Your task to perform on an android device: Go to internet settings Image 0: 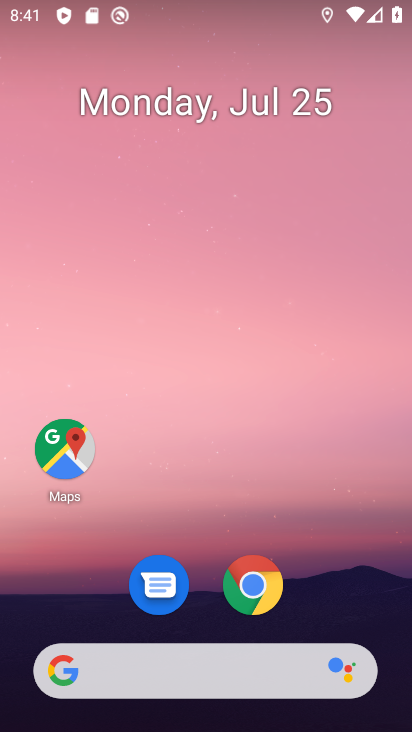
Step 0: press home button
Your task to perform on an android device: Go to internet settings Image 1: 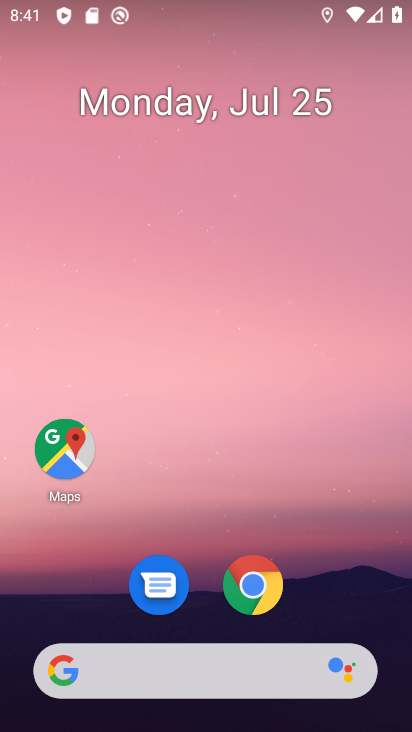
Step 1: drag from (200, 689) to (310, 96)
Your task to perform on an android device: Go to internet settings Image 2: 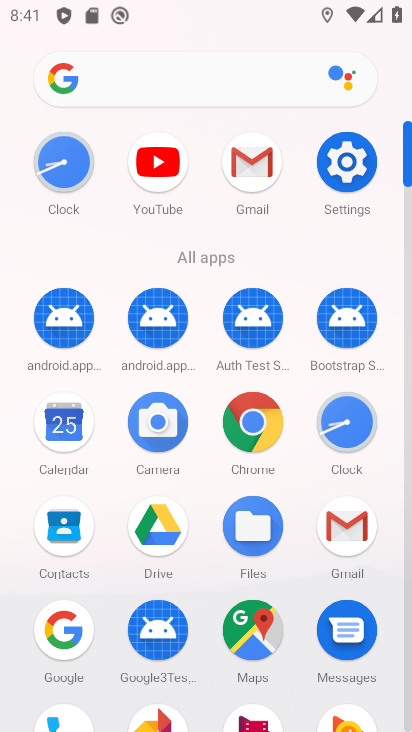
Step 2: click (354, 160)
Your task to perform on an android device: Go to internet settings Image 3: 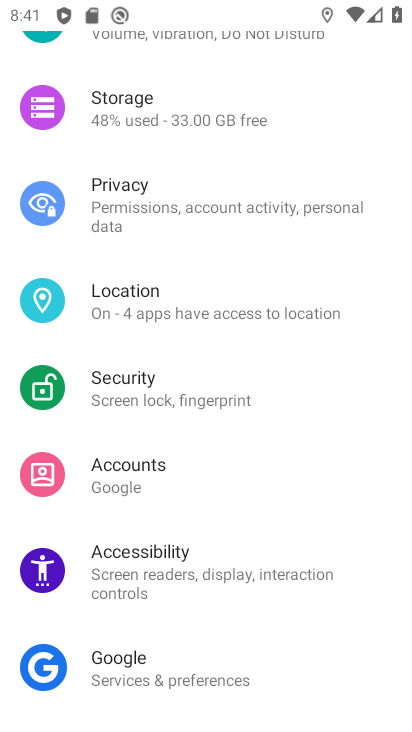
Step 3: drag from (326, 89) to (263, 603)
Your task to perform on an android device: Go to internet settings Image 4: 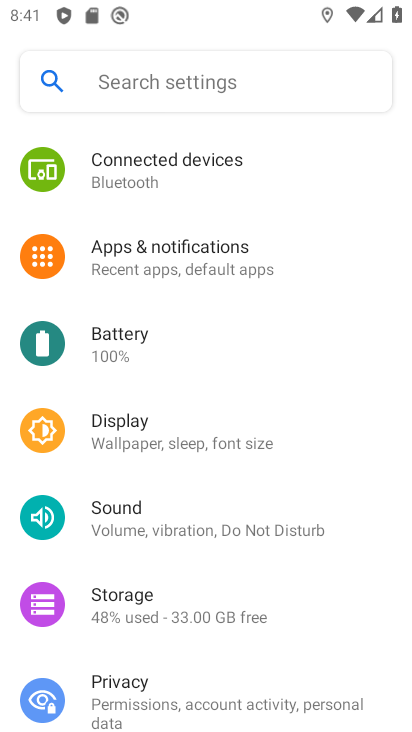
Step 4: drag from (367, 151) to (262, 636)
Your task to perform on an android device: Go to internet settings Image 5: 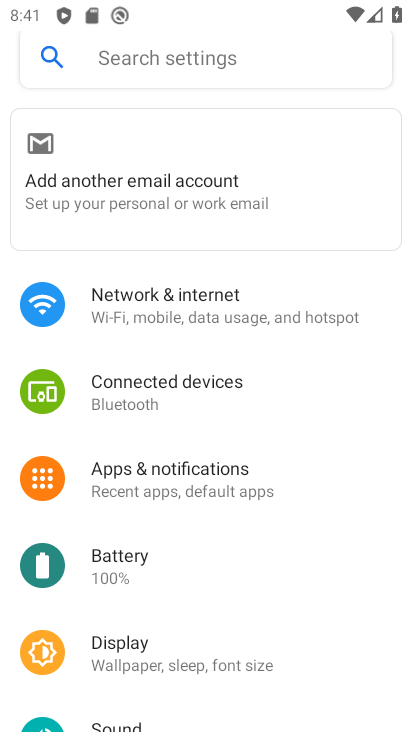
Step 5: click (206, 318)
Your task to perform on an android device: Go to internet settings Image 6: 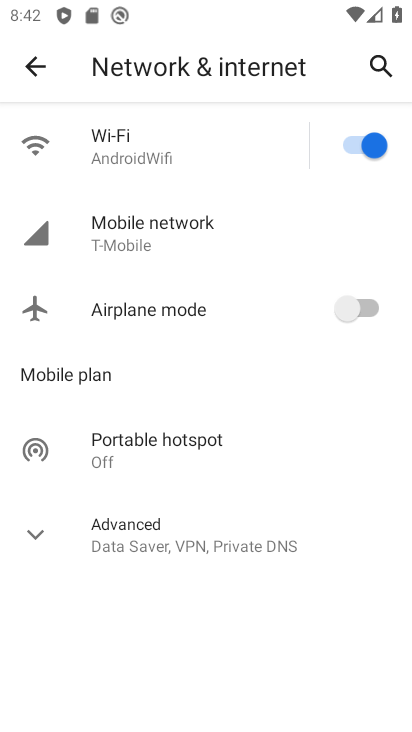
Step 6: task complete